Your task to perform on an android device: Open eBay Image 0: 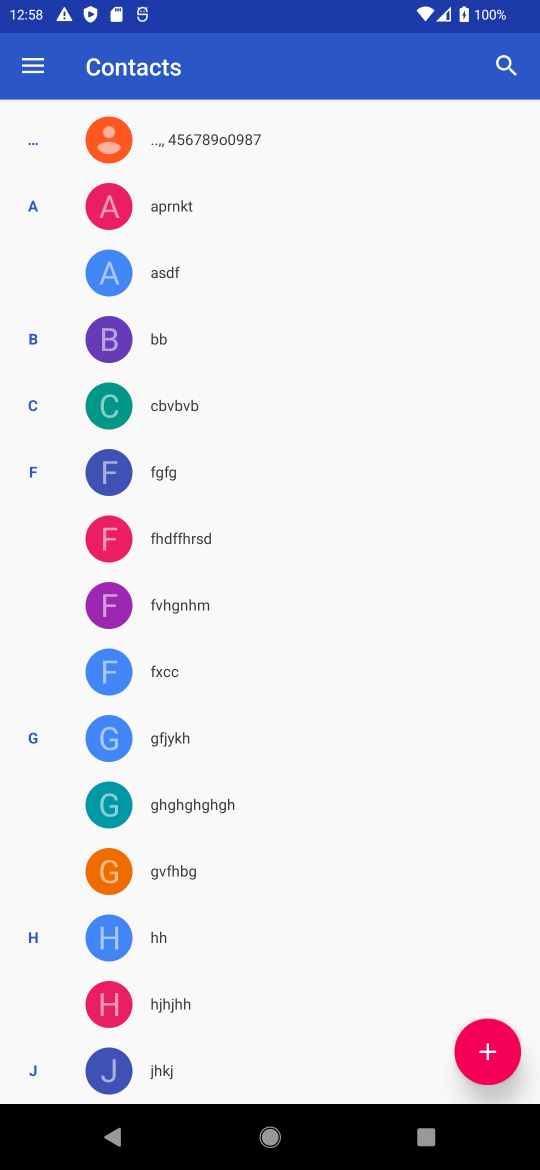
Step 0: press home button
Your task to perform on an android device: Open eBay Image 1: 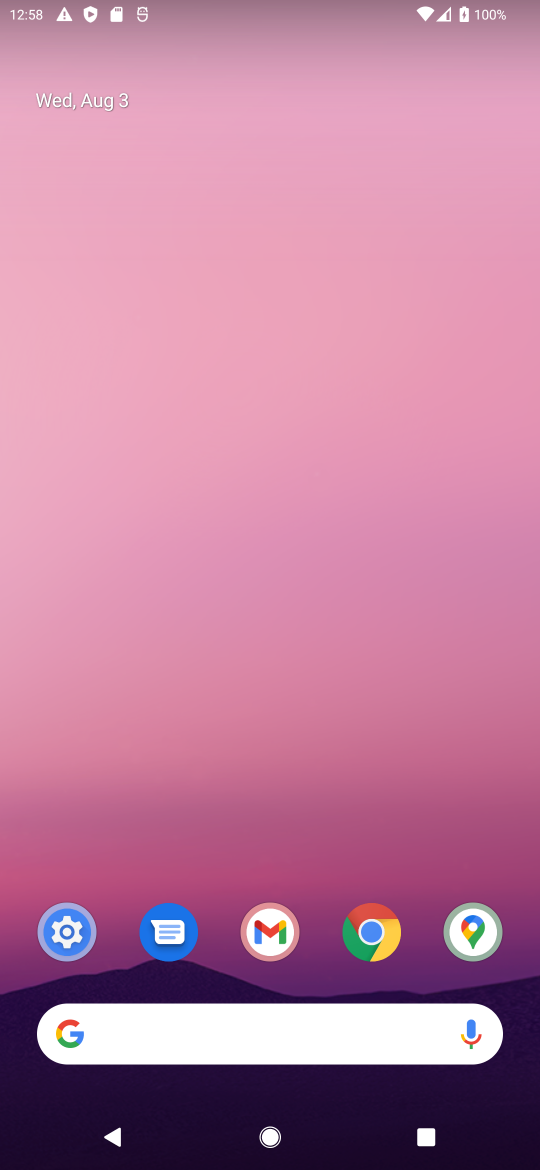
Step 1: click (266, 1034)
Your task to perform on an android device: Open eBay Image 2: 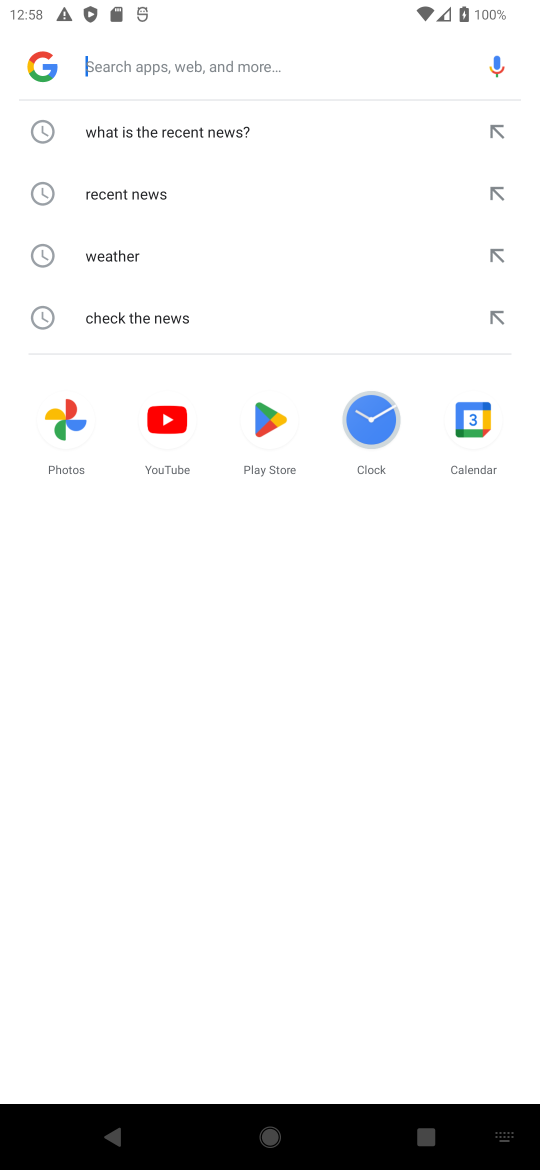
Step 2: type "ebay"
Your task to perform on an android device: Open eBay Image 3: 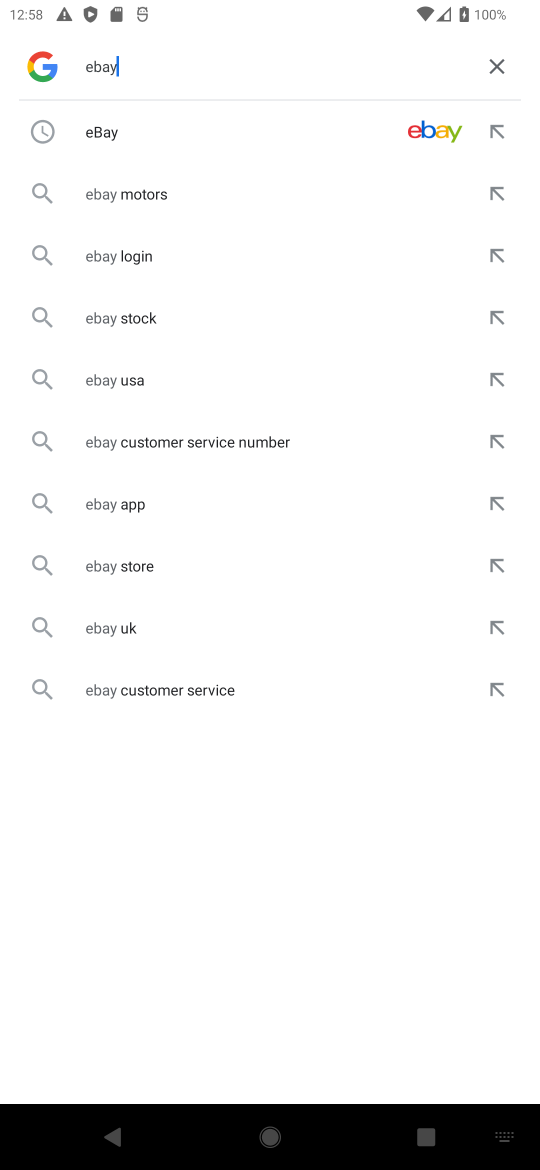
Step 3: click (387, 137)
Your task to perform on an android device: Open eBay Image 4: 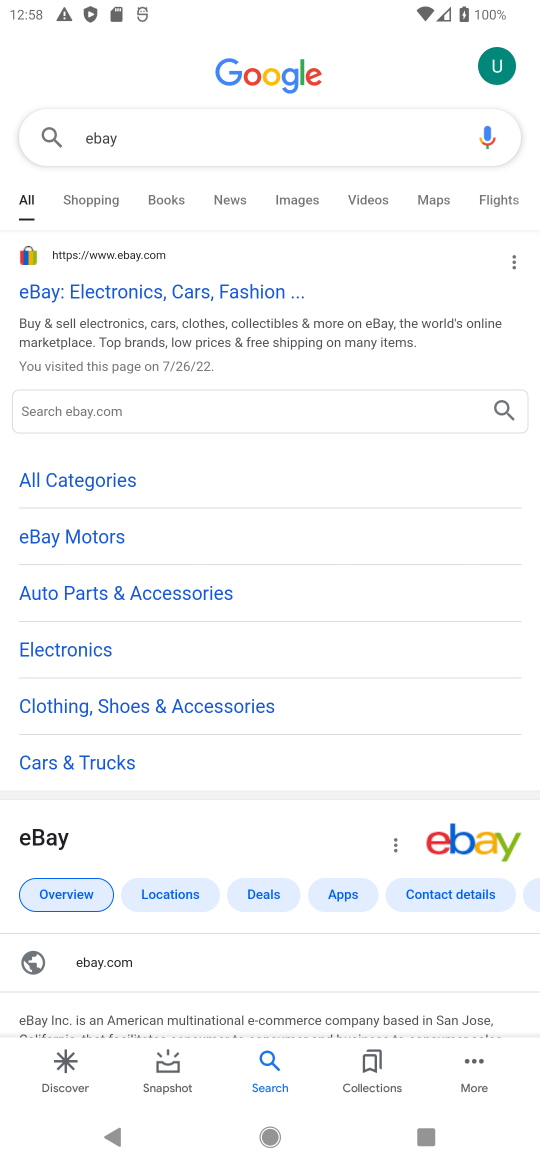
Step 4: click (128, 243)
Your task to perform on an android device: Open eBay Image 5: 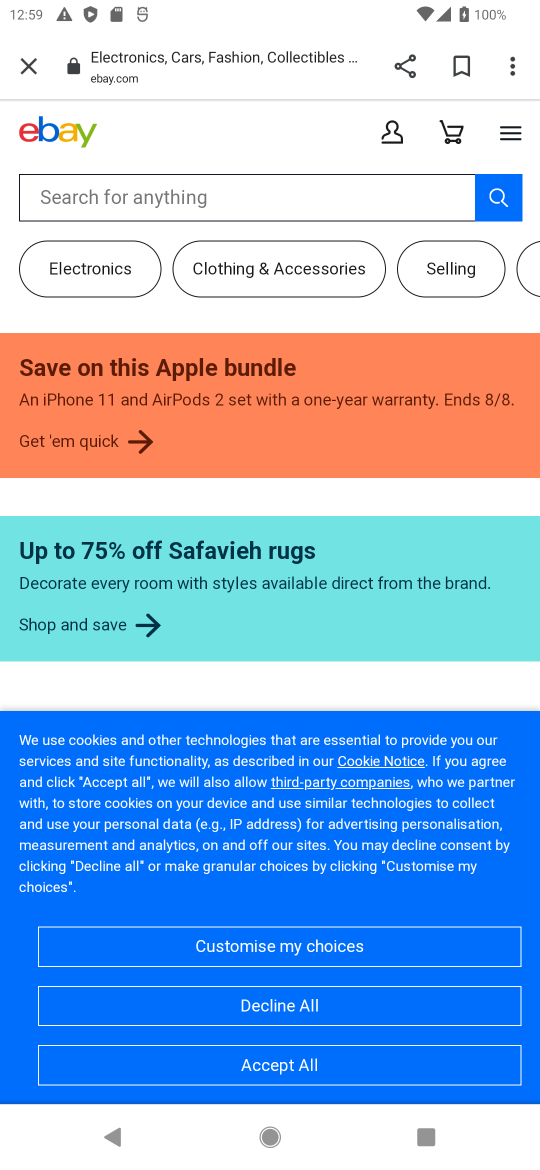
Step 5: task complete